Your task to perform on an android device: turn on priority inbox in the gmail app Image 0: 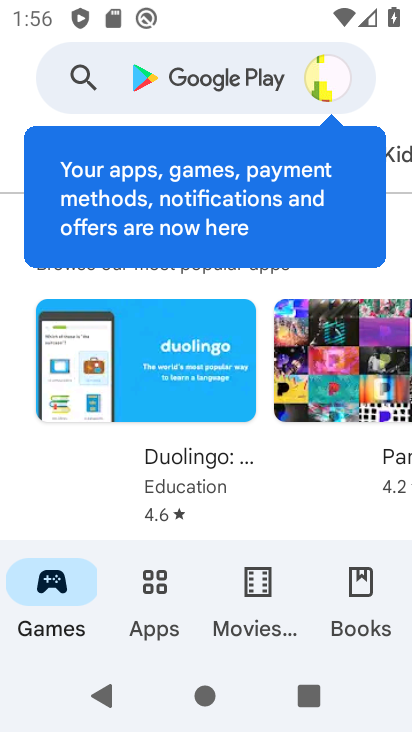
Step 0: press home button
Your task to perform on an android device: turn on priority inbox in the gmail app Image 1: 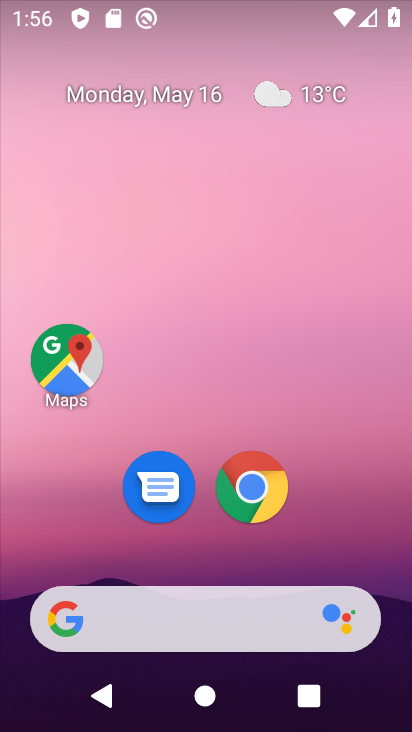
Step 1: drag from (297, 467) to (224, 69)
Your task to perform on an android device: turn on priority inbox in the gmail app Image 2: 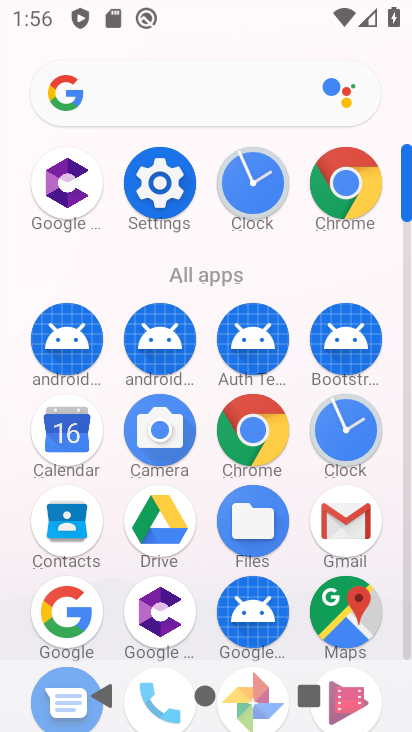
Step 2: click (340, 521)
Your task to perform on an android device: turn on priority inbox in the gmail app Image 3: 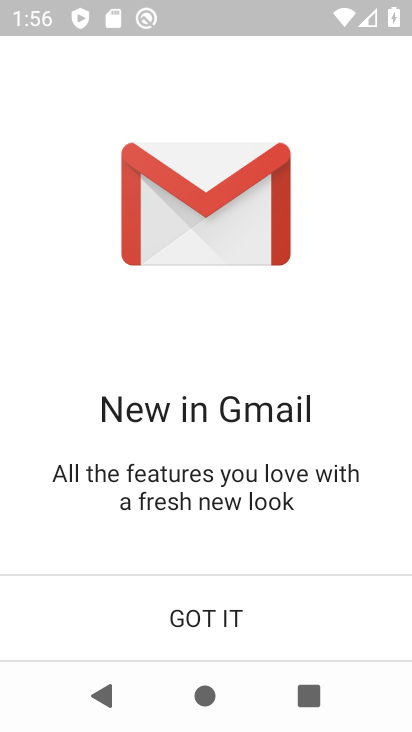
Step 3: click (220, 619)
Your task to perform on an android device: turn on priority inbox in the gmail app Image 4: 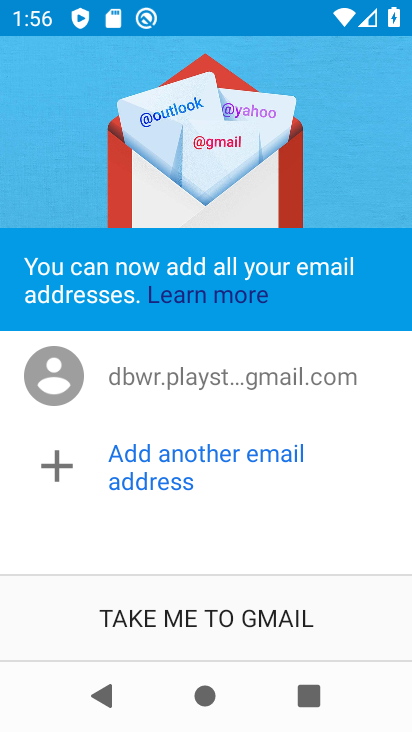
Step 4: click (220, 619)
Your task to perform on an android device: turn on priority inbox in the gmail app Image 5: 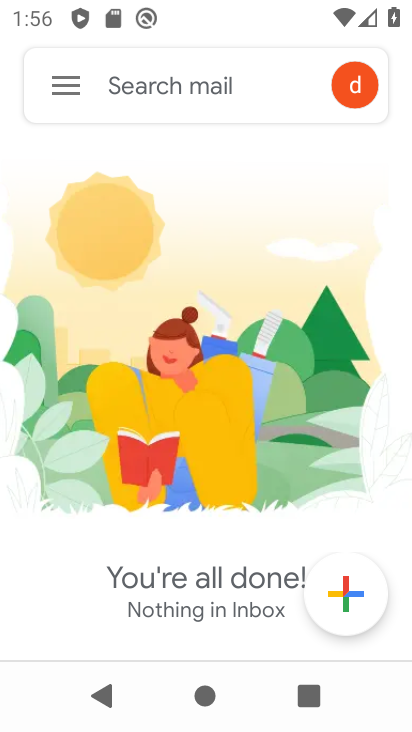
Step 5: click (64, 93)
Your task to perform on an android device: turn on priority inbox in the gmail app Image 6: 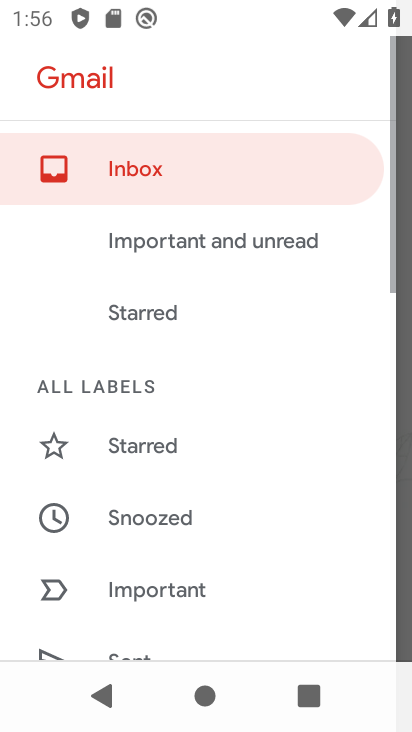
Step 6: drag from (150, 617) to (119, 153)
Your task to perform on an android device: turn on priority inbox in the gmail app Image 7: 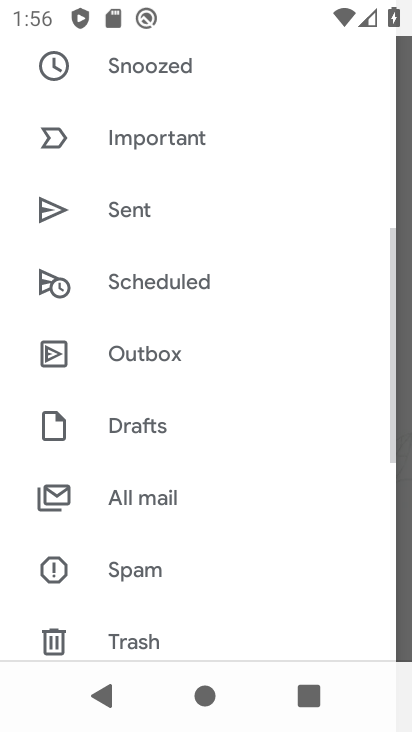
Step 7: drag from (127, 627) to (113, 174)
Your task to perform on an android device: turn on priority inbox in the gmail app Image 8: 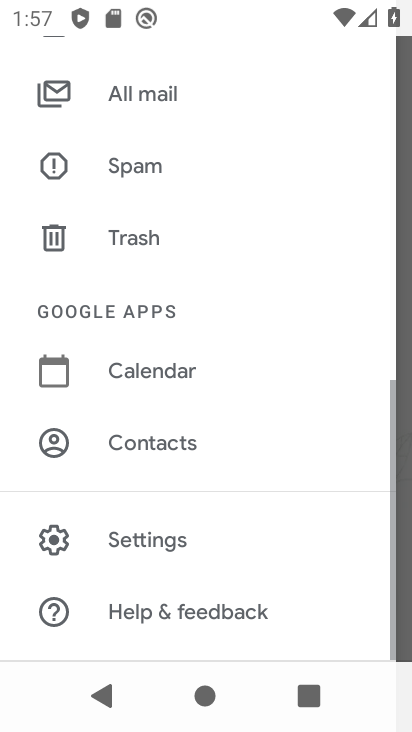
Step 8: click (121, 538)
Your task to perform on an android device: turn on priority inbox in the gmail app Image 9: 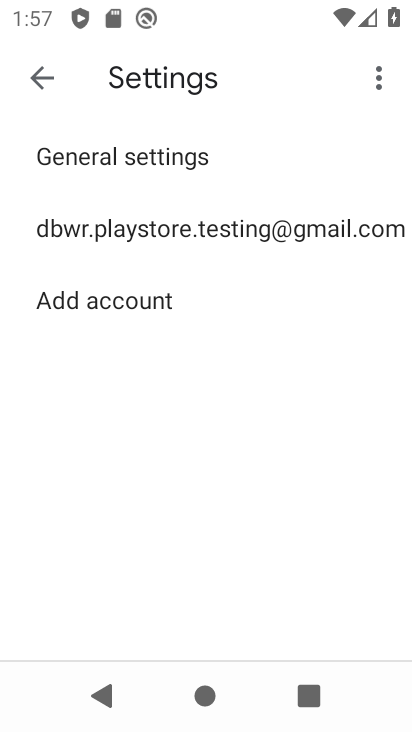
Step 9: click (189, 229)
Your task to perform on an android device: turn on priority inbox in the gmail app Image 10: 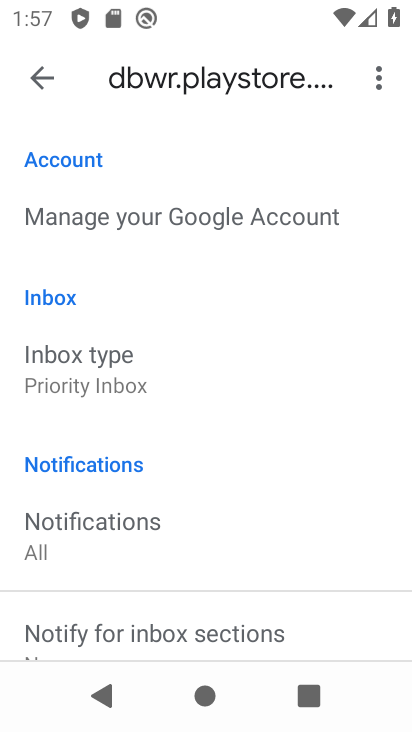
Step 10: click (106, 389)
Your task to perform on an android device: turn on priority inbox in the gmail app Image 11: 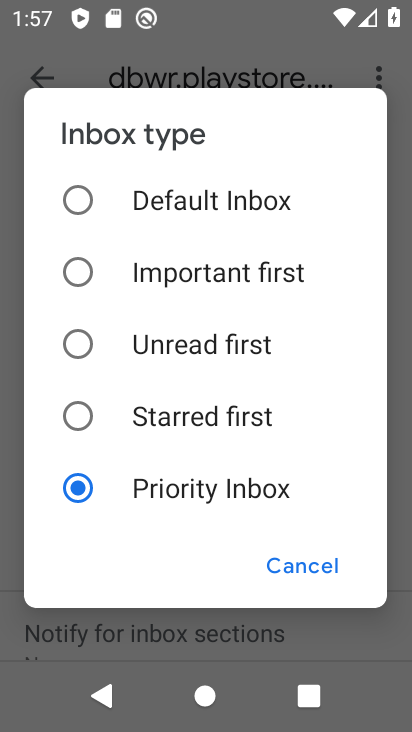
Step 11: task complete